Your task to perform on an android device: allow cookies in the chrome app Image 0: 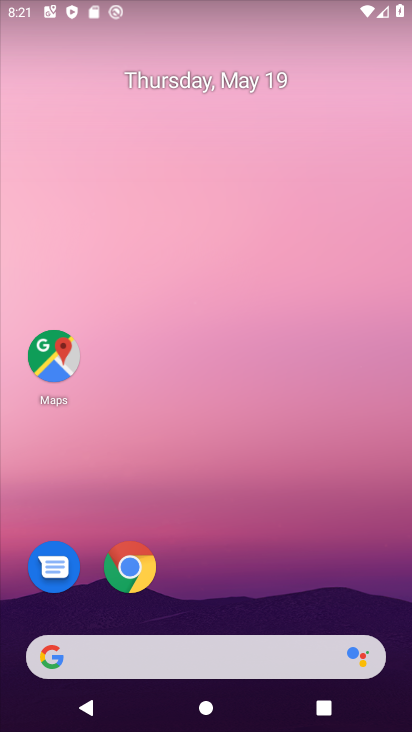
Step 0: click (143, 575)
Your task to perform on an android device: allow cookies in the chrome app Image 1: 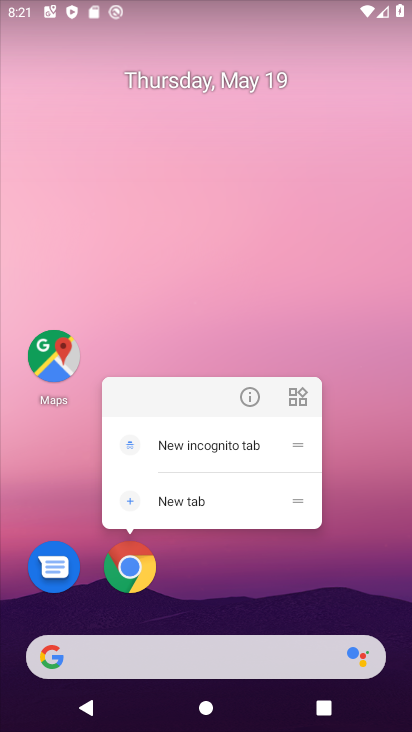
Step 1: click (144, 573)
Your task to perform on an android device: allow cookies in the chrome app Image 2: 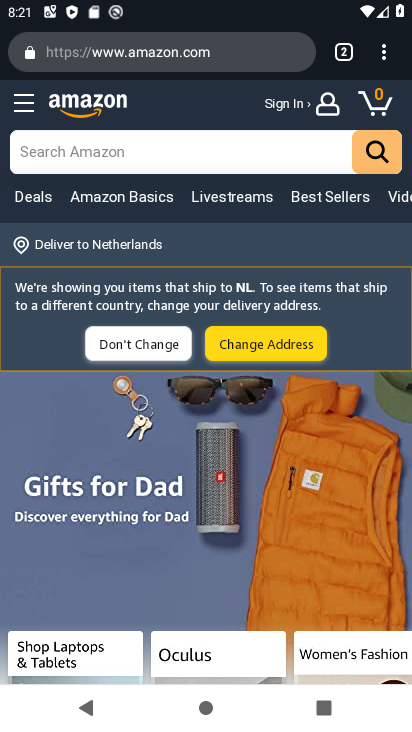
Step 2: click (387, 57)
Your task to perform on an android device: allow cookies in the chrome app Image 3: 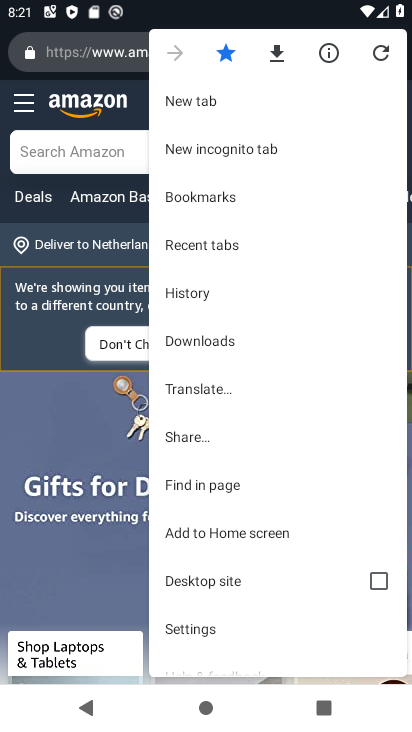
Step 3: click (212, 634)
Your task to perform on an android device: allow cookies in the chrome app Image 4: 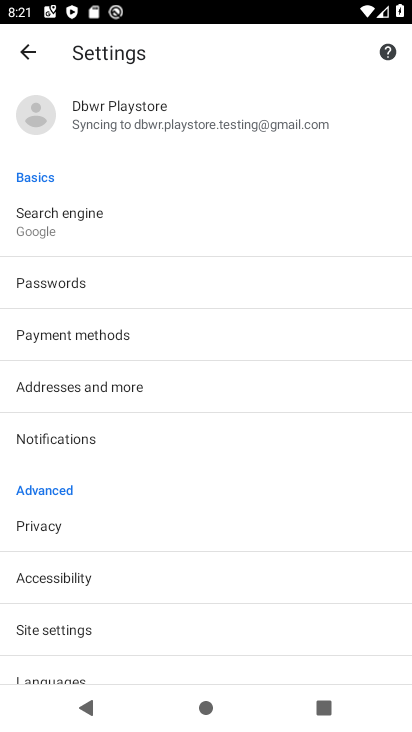
Step 4: click (51, 636)
Your task to perform on an android device: allow cookies in the chrome app Image 5: 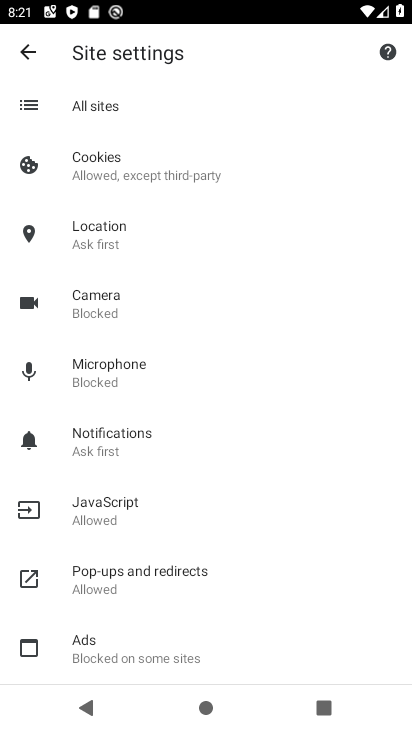
Step 5: click (150, 177)
Your task to perform on an android device: allow cookies in the chrome app Image 6: 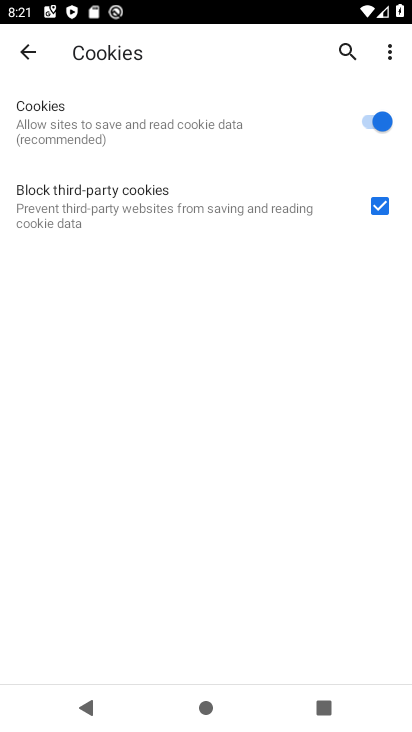
Step 6: task complete